Your task to perform on an android device: Open the calendar app, open the side menu, and click the "Day" option Image 0: 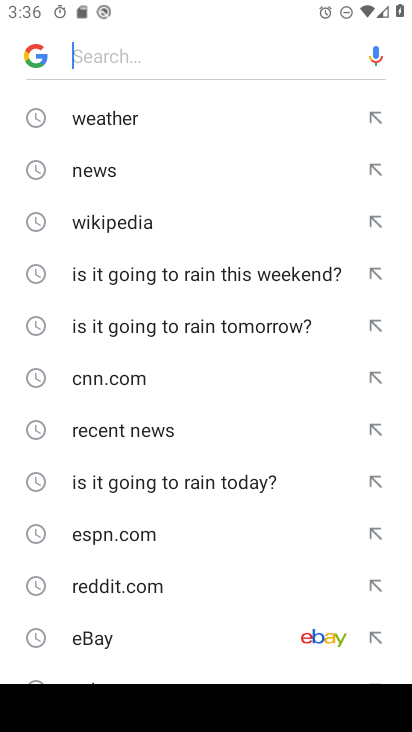
Step 0: press home button
Your task to perform on an android device: Open the calendar app, open the side menu, and click the "Day" option Image 1: 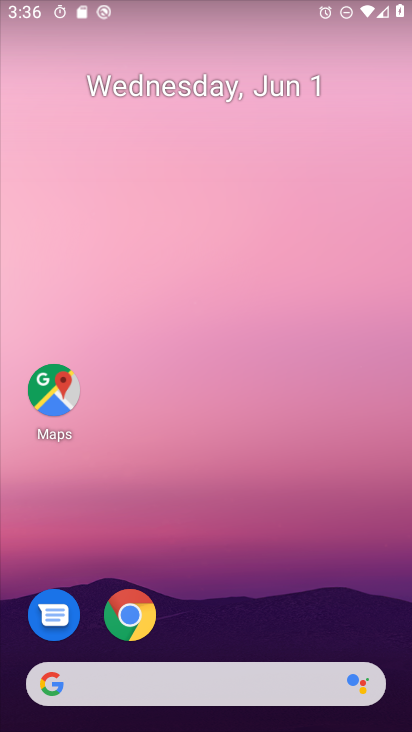
Step 1: drag from (251, 620) to (282, 293)
Your task to perform on an android device: Open the calendar app, open the side menu, and click the "Day" option Image 2: 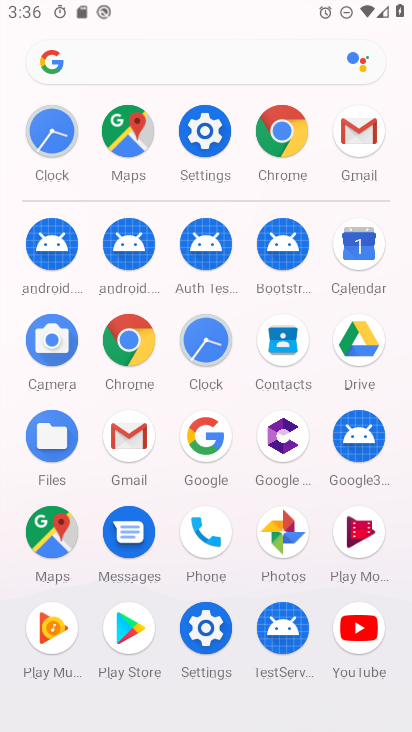
Step 2: click (373, 259)
Your task to perform on an android device: Open the calendar app, open the side menu, and click the "Day" option Image 3: 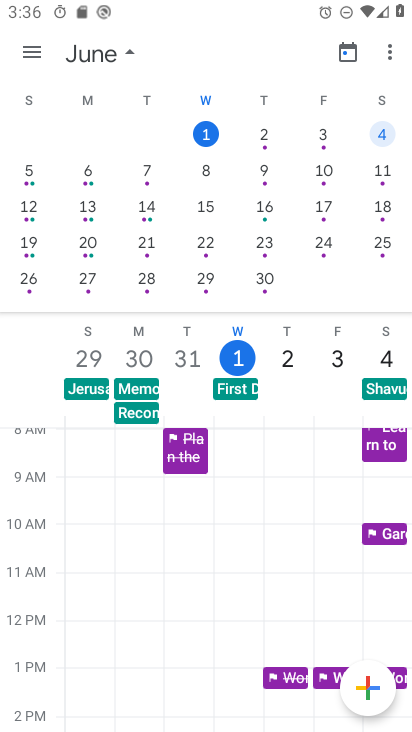
Step 3: click (31, 50)
Your task to perform on an android device: Open the calendar app, open the side menu, and click the "Day" option Image 4: 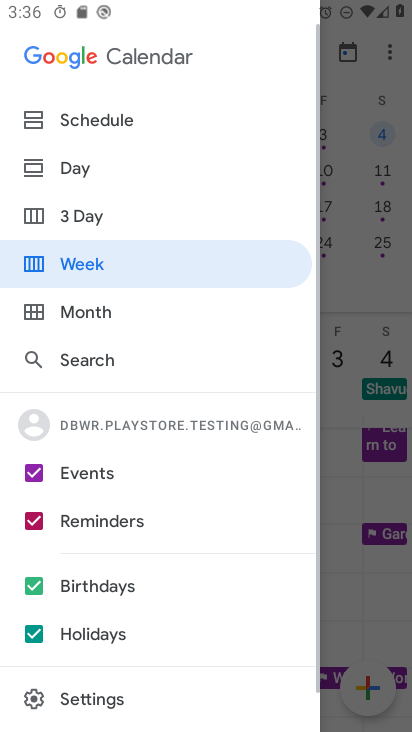
Step 4: click (111, 173)
Your task to perform on an android device: Open the calendar app, open the side menu, and click the "Day" option Image 5: 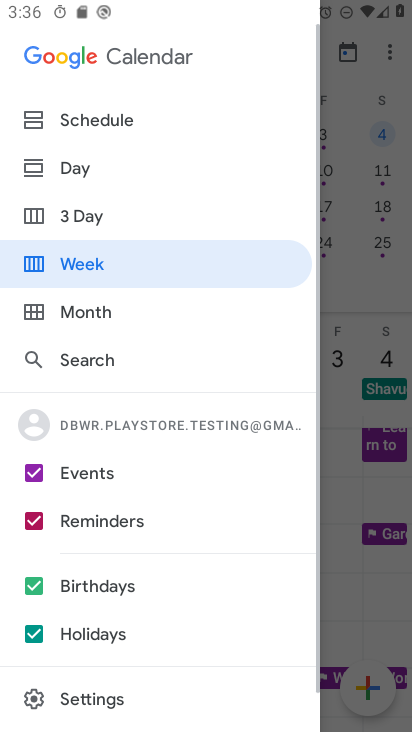
Step 5: click (68, 166)
Your task to perform on an android device: Open the calendar app, open the side menu, and click the "Day" option Image 6: 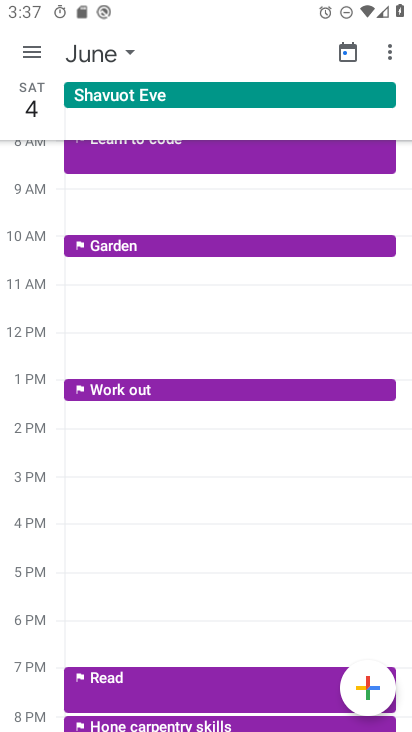
Step 6: click (35, 54)
Your task to perform on an android device: Open the calendar app, open the side menu, and click the "Day" option Image 7: 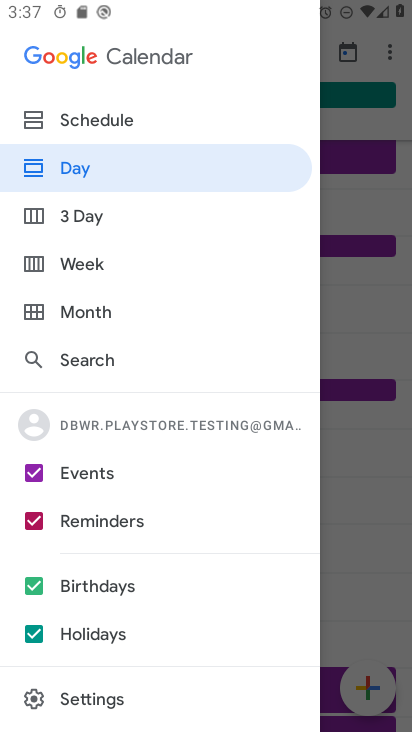
Step 7: click (100, 166)
Your task to perform on an android device: Open the calendar app, open the side menu, and click the "Day" option Image 8: 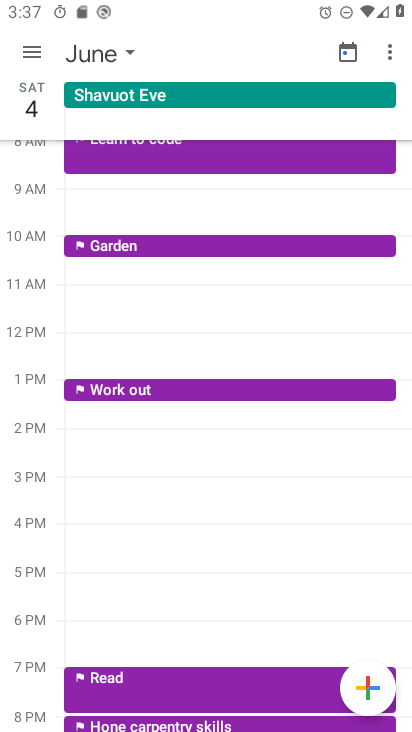
Step 8: task complete